Your task to perform on an android device: Open Google Maps Image 0: 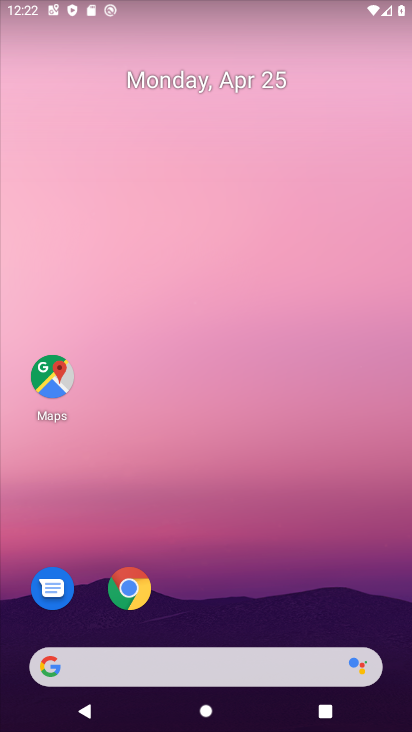
Step 0: click (50, 376)
Your task to perform on an android device: Open Google Maps Image 1: 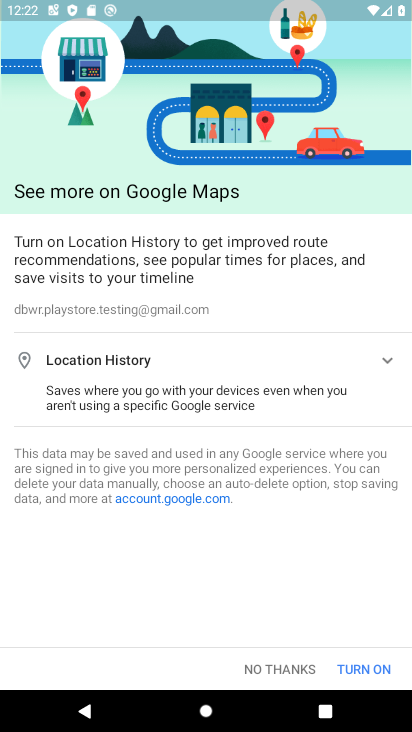
Step 1: click (309, 665)
Your task to perform on an android device: Open Google Maps Image 2: 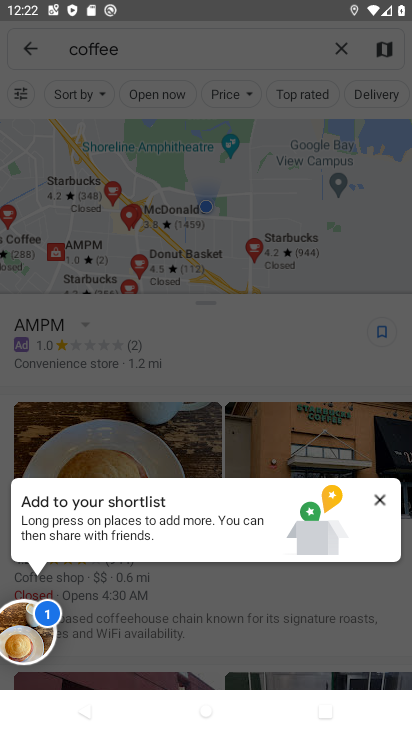
Step 2: click (379, 503)
Your task to perform on an android device: Open Google Maps Image 3: 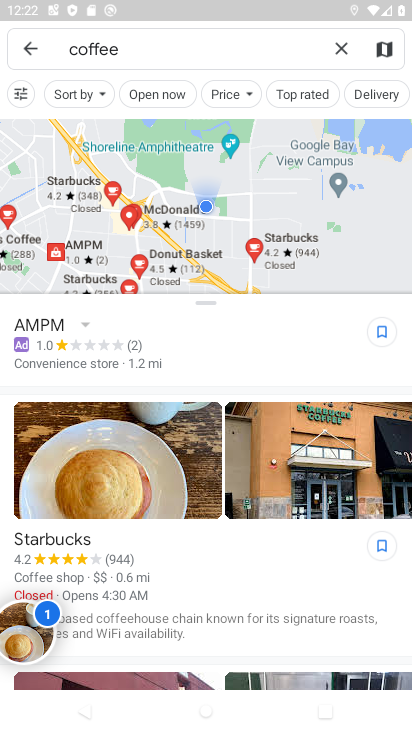
Step 3: task complete